Your task to perform on an android device: Open the phone app and click the voicemail tab. Image 0: 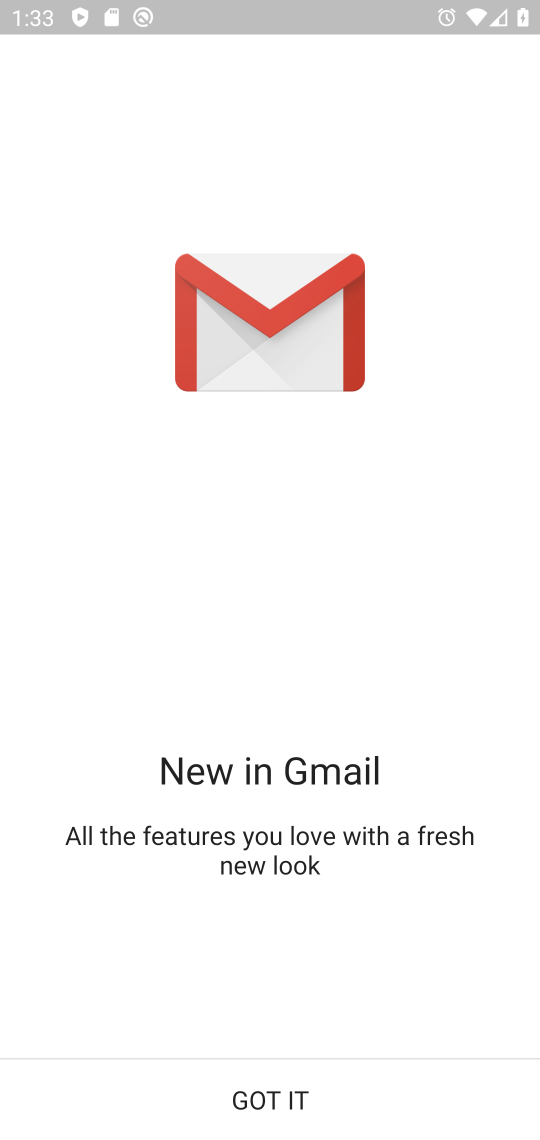
Step 0: press home button
Your task to perform on an android device: Open the phone app and click the voicemail tab. Image 1: 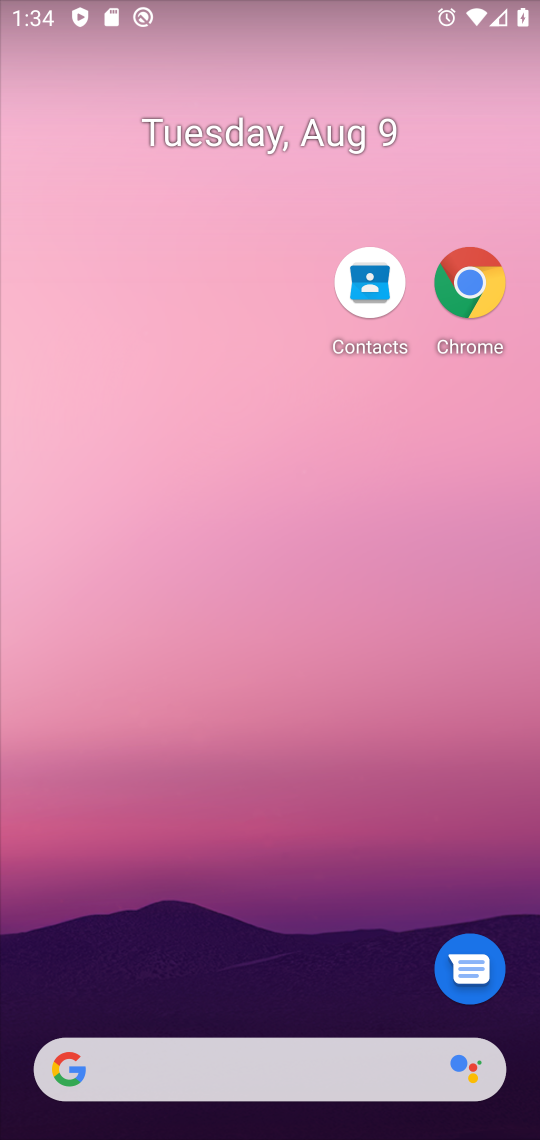
Step 1: drag from (287, 904) to (317, 58)
Your task to perform on an android device: Open the phone app and click the voicemail tab. Image 2: 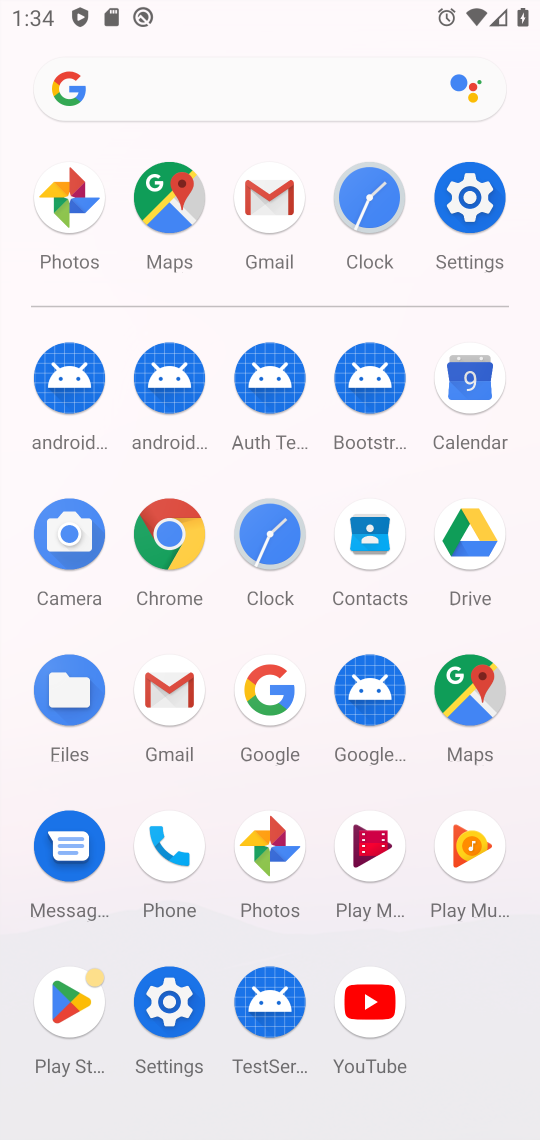
Step 2: click (162, 826)
Your task to perform on an android device: Open the phone app and click the voicemail tab. Image 3: 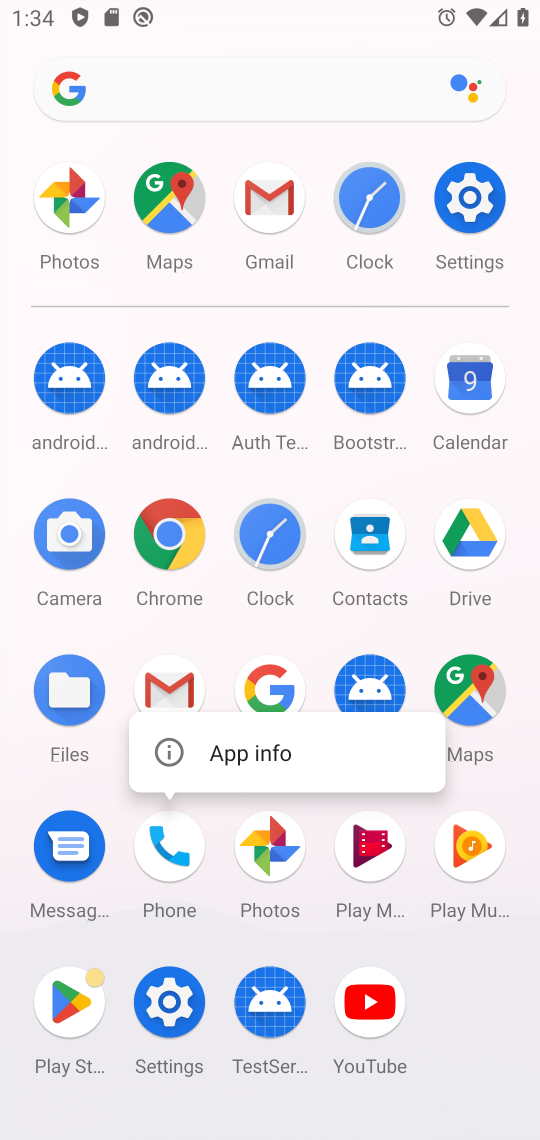
Step 3: click (229, 747)
Your task to perform on an android device: Open the phone app and click the voicemail tab. Image 4: 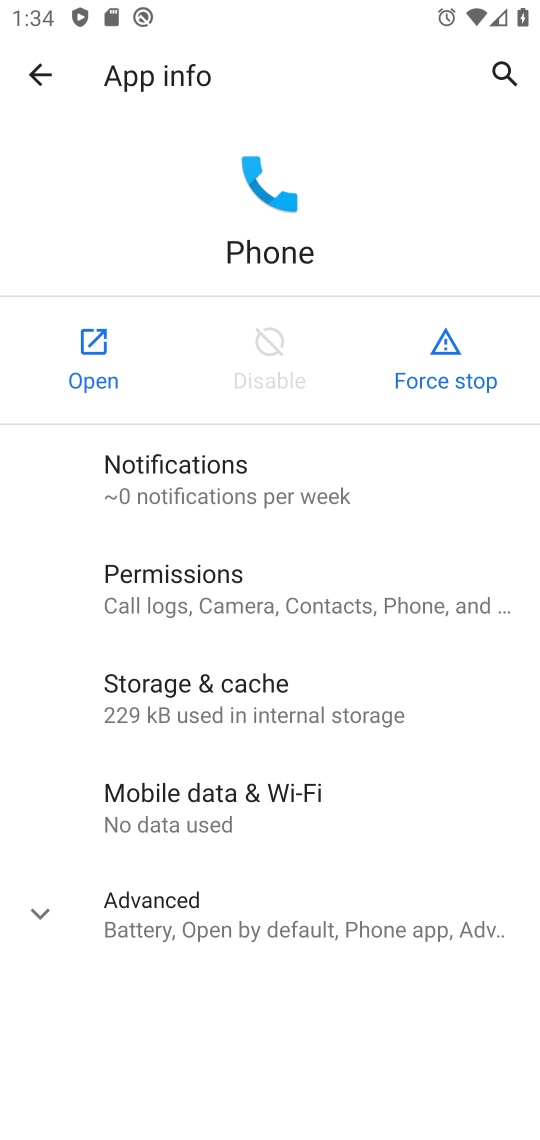
Step 4: click (92, 373)
Your task to perform on an android device: Open the phone app and click the voicemail tab. Image 5: 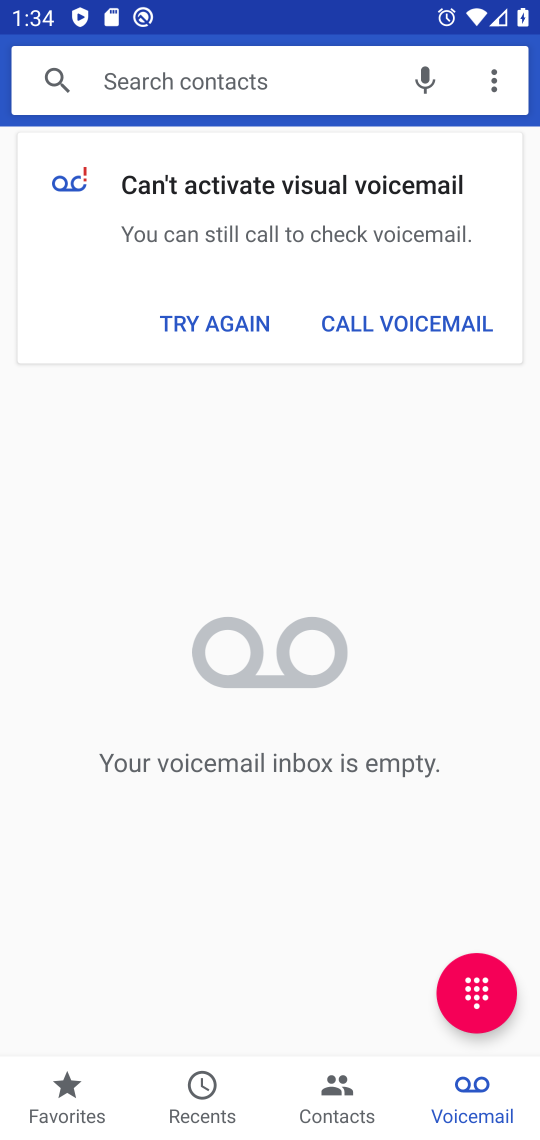
Step 5: click (452, 1120)
Your task to perform on an android device: Open the phone app and click the voicemail tab. Image 6: 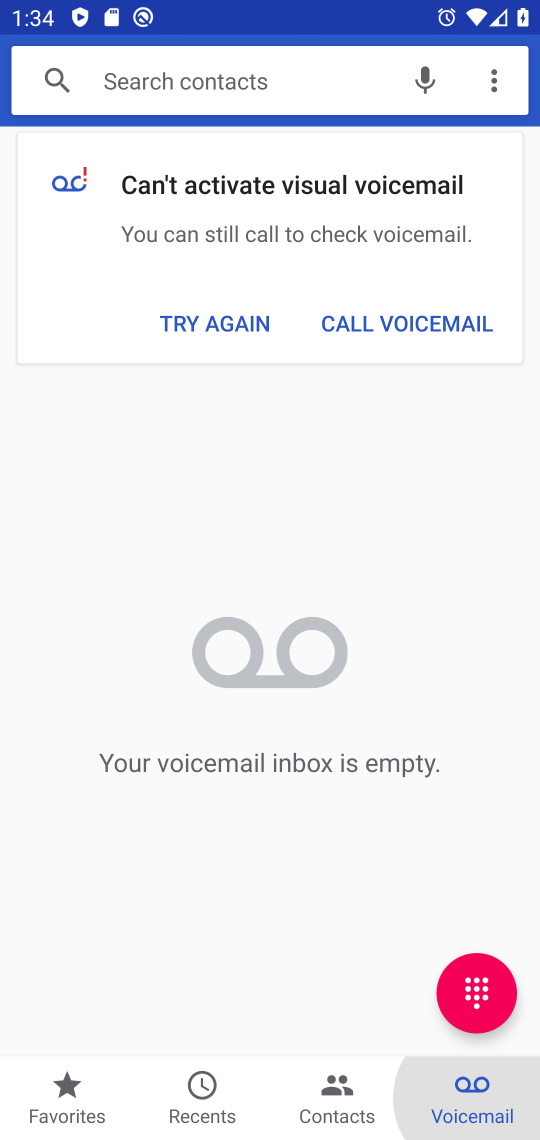
Step 6: task complete